Your task to perform on an android device: Go to Amazon Image 0: 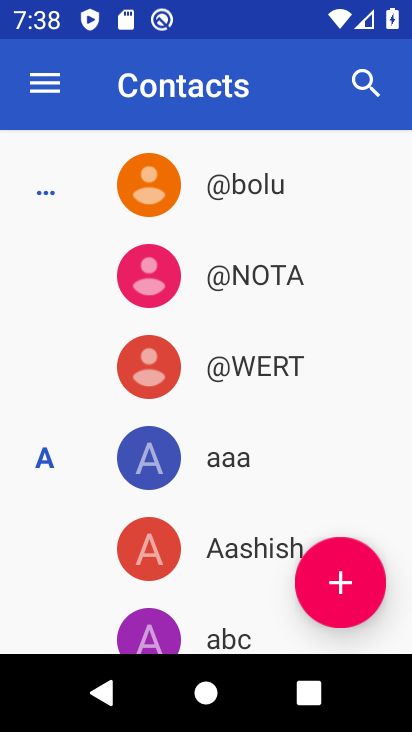
Step 0: press home button
Your task to perform on an android device: Go to Amazon Image 1: 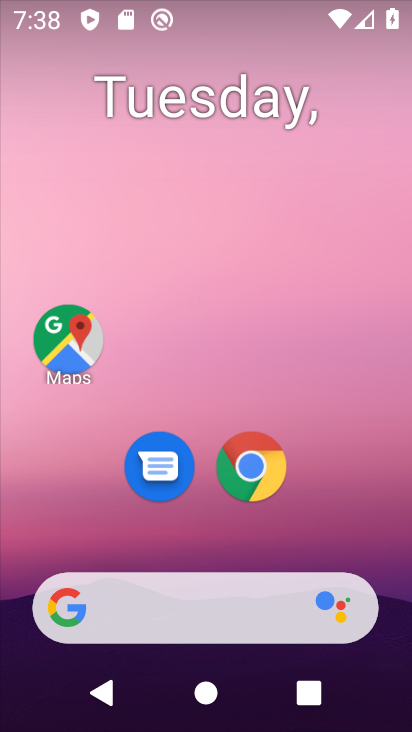
Step 1: click (247, 462)
Your task to perform on an android device: Go to Amazon Image 2: 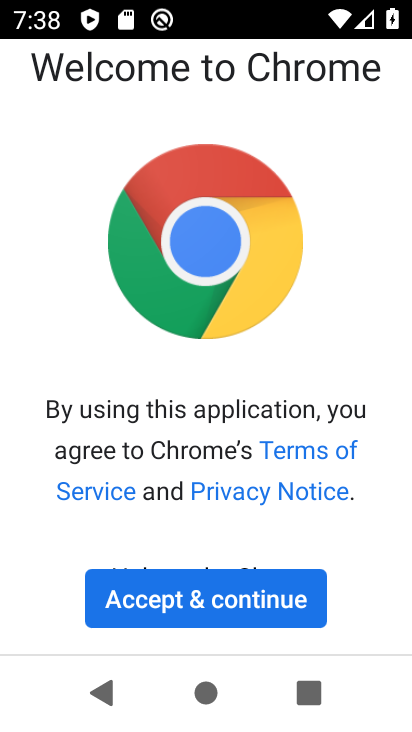
Step 2: click (199, 603)
Your task to perform on an android device: Go to Amazon Image 3: 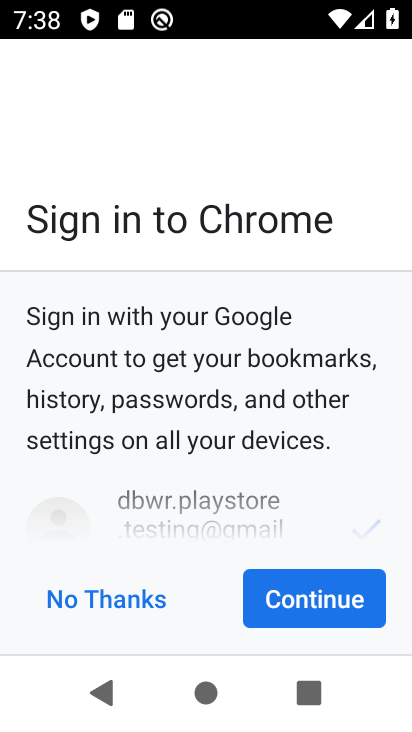
Step 3: click (87, 597)
Your task to perform on an android device: Go to Amazon Image 4: 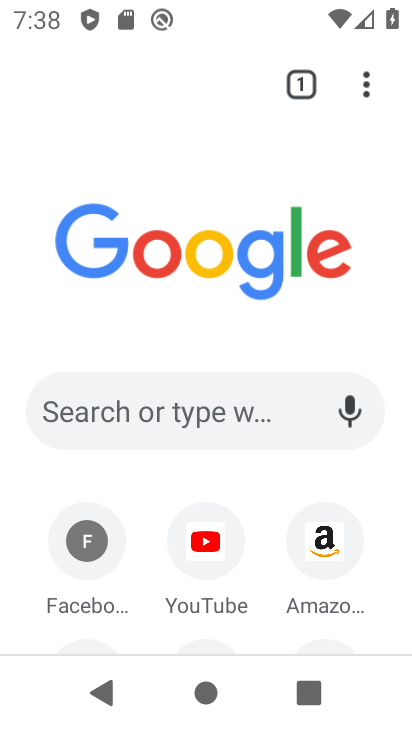
Step 4: click (210, 582)
Your task to perform on an android device: Go to Amazon Image 5: 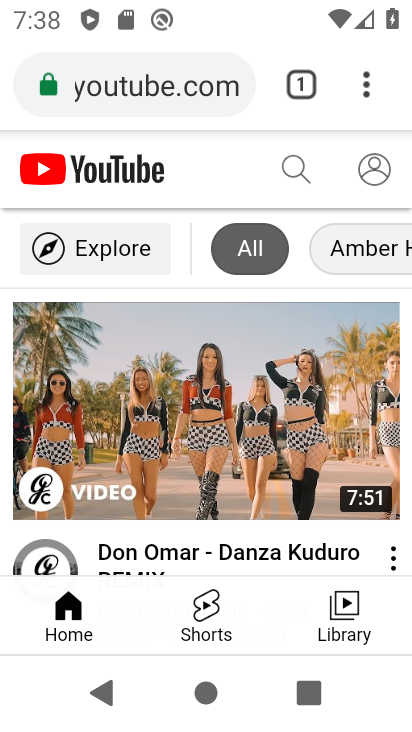
Step 5: press back button
Your task to perform on an android device: Go to Amazon Image 6: 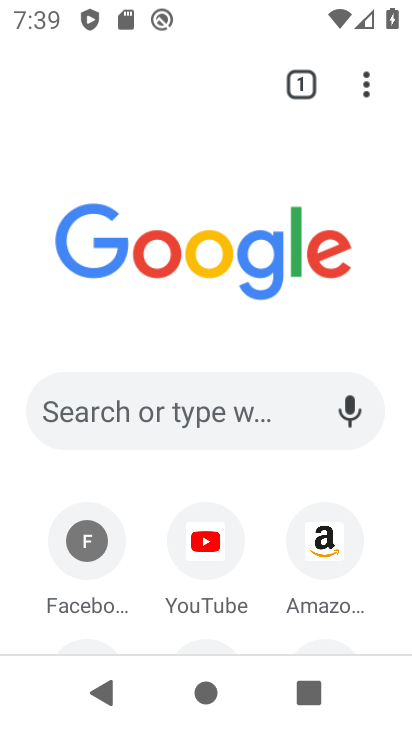
Step 6: click (310, 541)
Your task to perform on an android device: Go to Amazon Image 7: 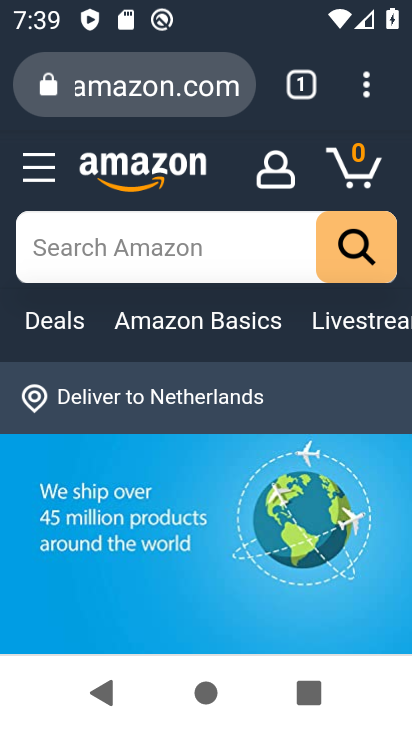
Step 7: task complete